Your task to perform on an android device: Go to calendar. Show me events next week Image 0: 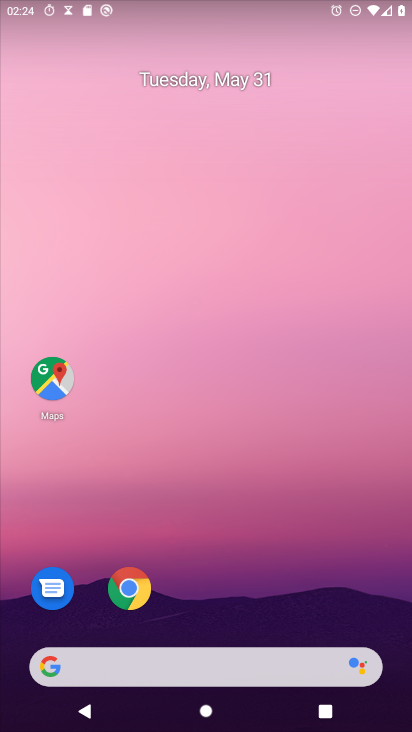
Step 0: drag from (221, 564) to (258, 8)
Your task to perform on an android device: Go to calendar. Show me events next week Image 1: 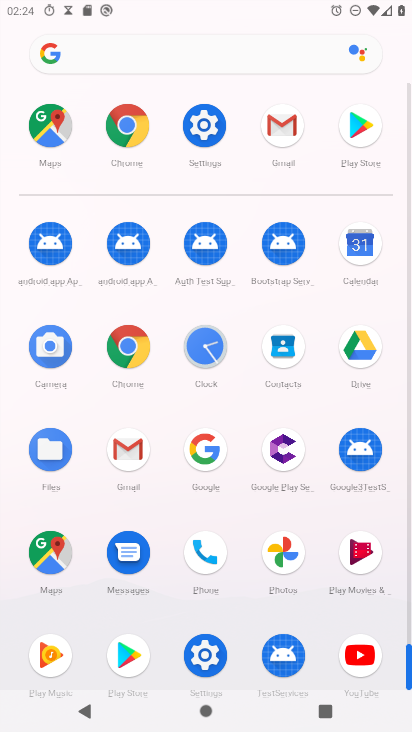
Step 1: click (360, 252)
Your task to perform on an android device: Go to calendar. Show me events next week Image 2: 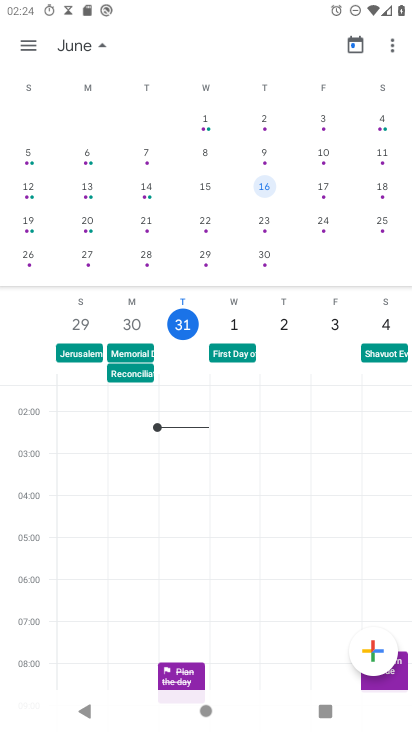
Step 2: click (270, 120)
Your task to perform on an android device: Go to calendar. Show me events next week Image 3: 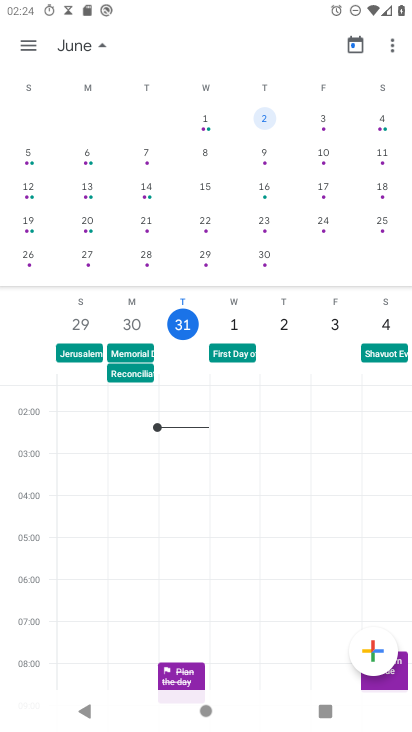
Step 3: task complete